Your task to perform on an android device: open app "Spotify" (install if not already installed) and go to login screen Image 0: 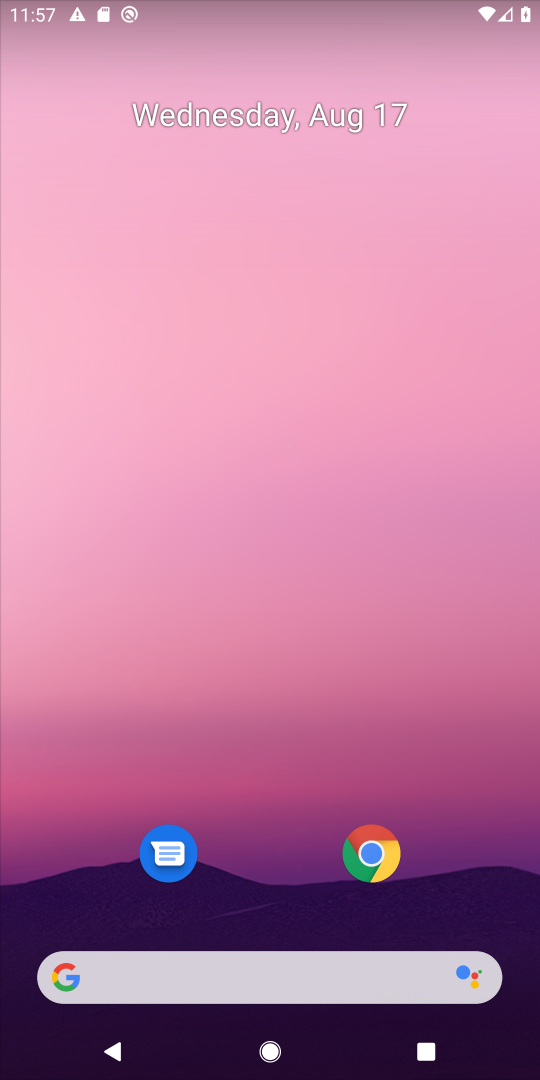
Step 0: drag from (171, 945) to (87, 240)
Your task to perform on an android device: open app "Spotify" (install if not already installed) and go to login screen Image 1: 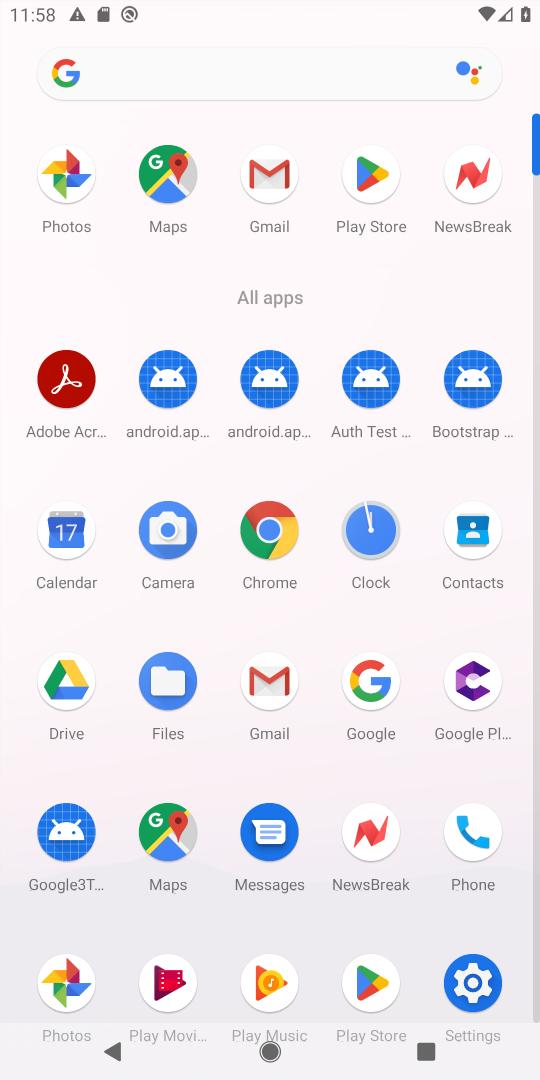
Step 1: click (350, 972)
Your task to perform on an android device: open app "Spotify" (install if not already installed) and go to login screen Image 2: 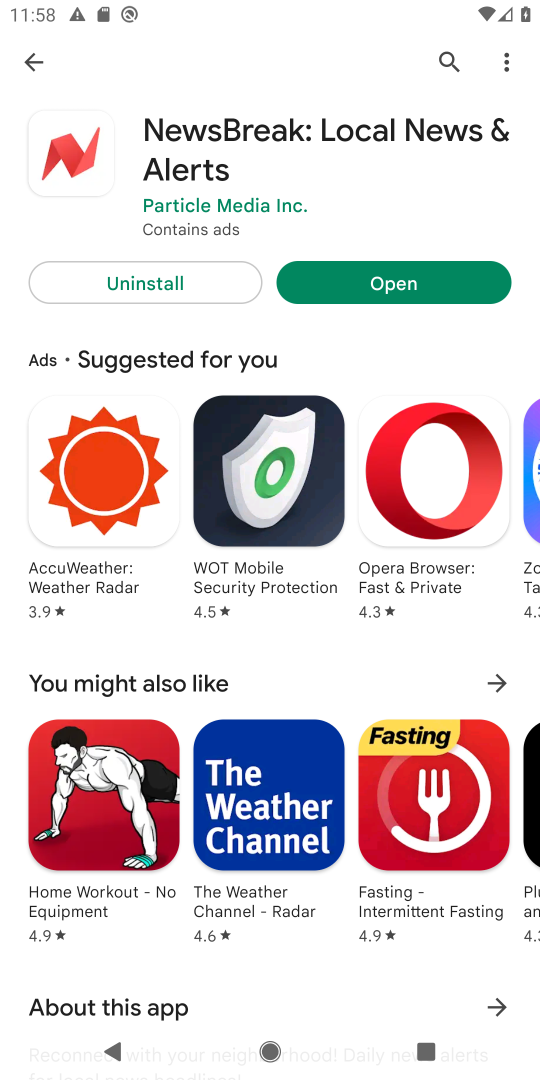
Step 2: click (15, 65)
Your task to perform on an android device: open app "Spotify" (install if not already installed) and go to login screen Image 3: 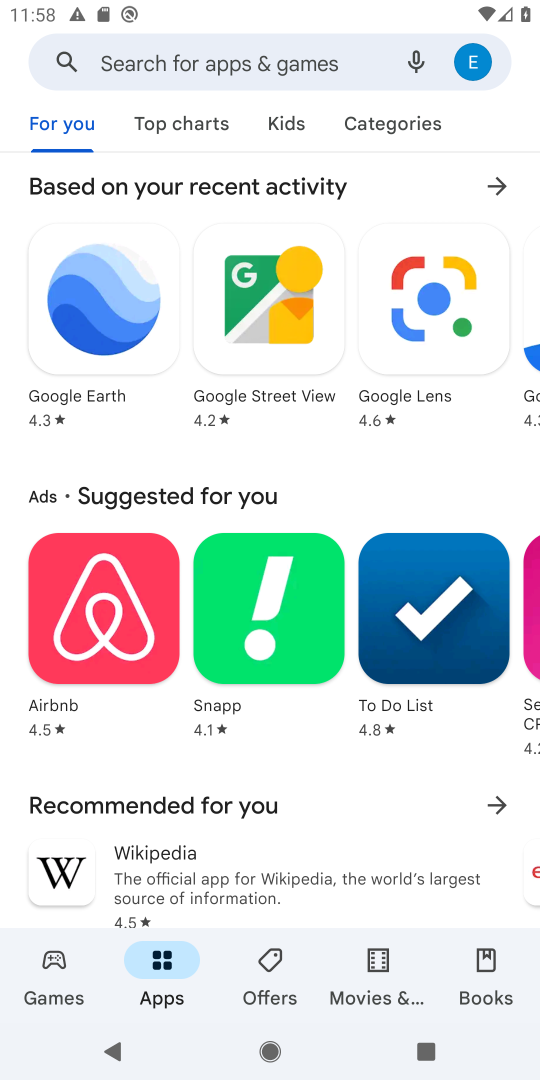
Step 3: click (208, 64)
Your task to perform on an android device: open app "Spotify" (install if not already installed) and go to login screen Image 4: 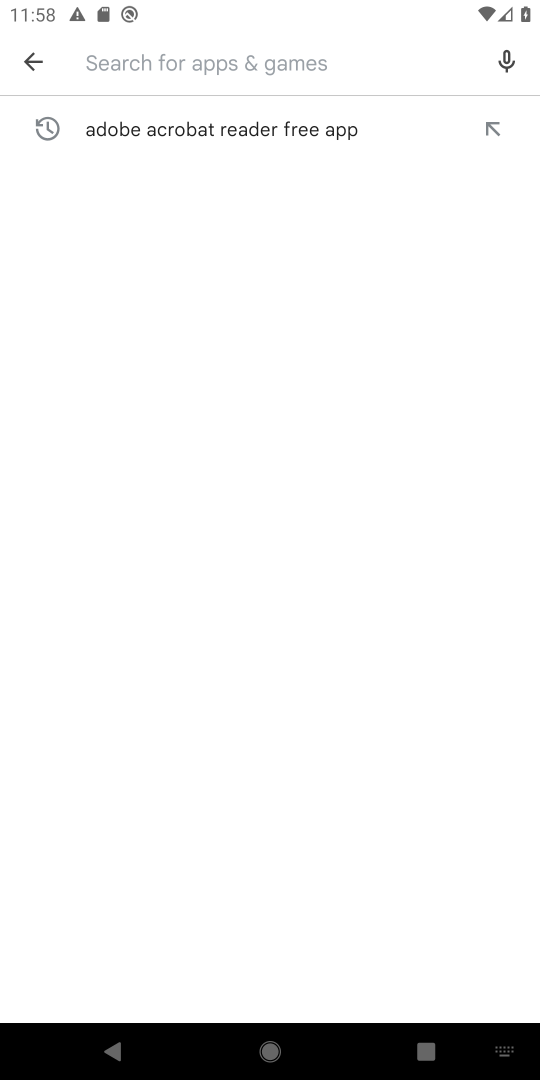
Step 4: type "Spotify"
Your task to perform on an android device: open app "Spotify" (install if not already installed) and go to login screen Image 5: 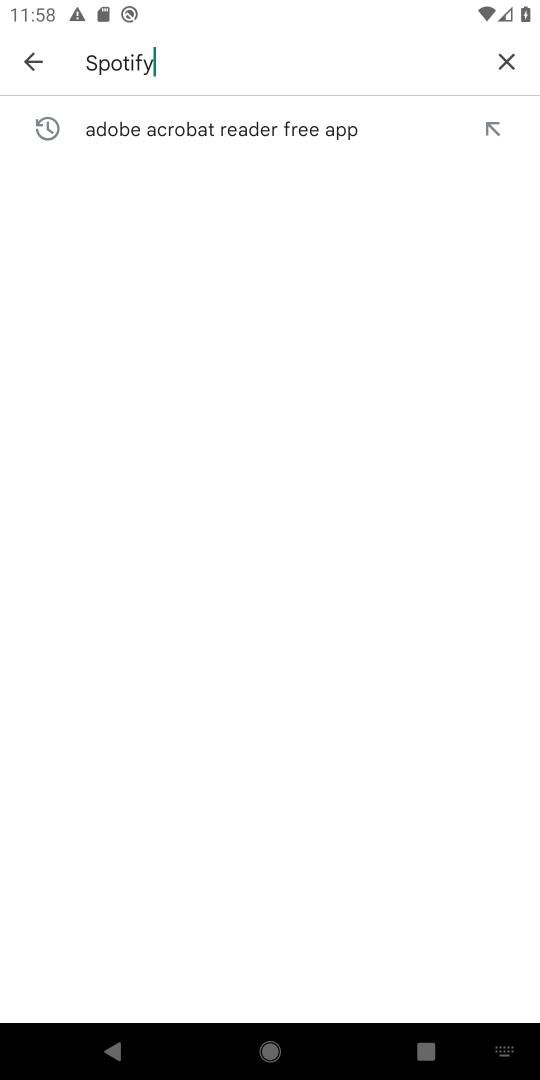
Step 5: type ""
Your task to perform on an android device: open app "Spotify" (install if not already installed) and go to login screen Image 6: 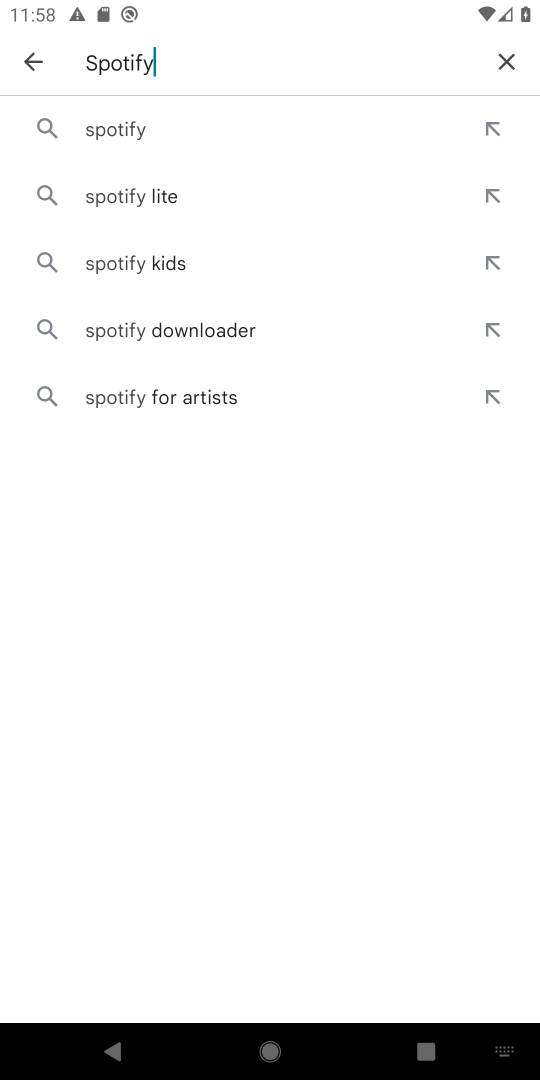
Step 6: click (123, 113)
Your task to perform on an android device: open app "Spotify" (install if not already installed) and go to login screen Image 7: 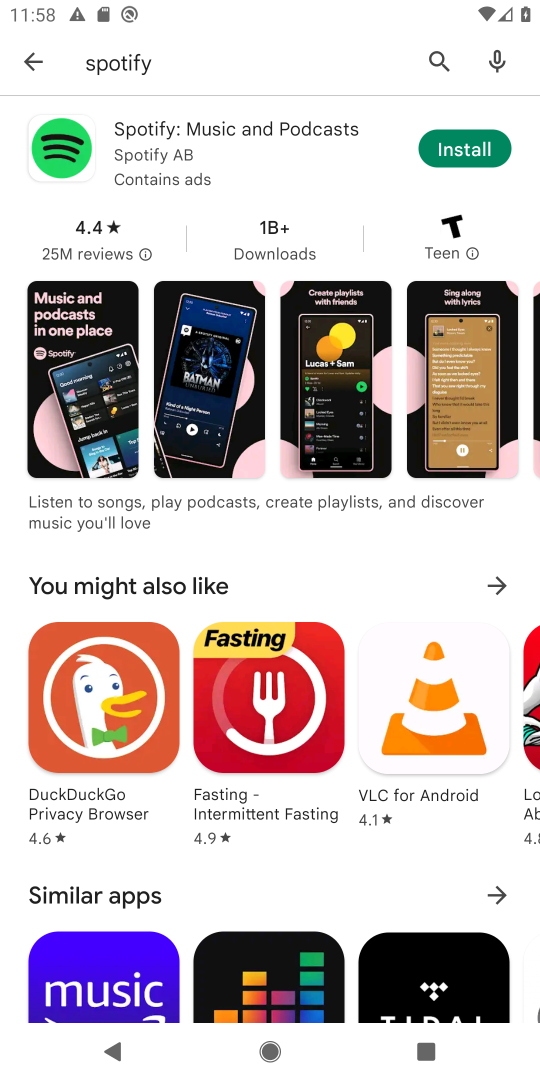
Step 7: click (461, 153)
Your task to perform on an android device: open app "Spotify" (install if not already installed) and go to login screen Image 8: 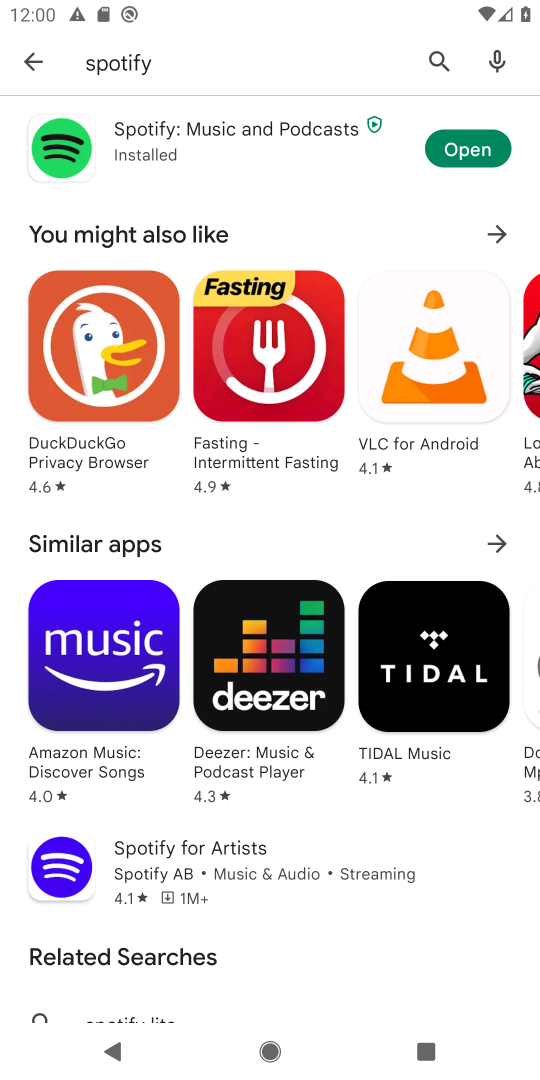
Step 8: click (485, 156)
Your task to perform on an android device: open app "Spotify" (install if not already installed) and go to login screen Image 9: 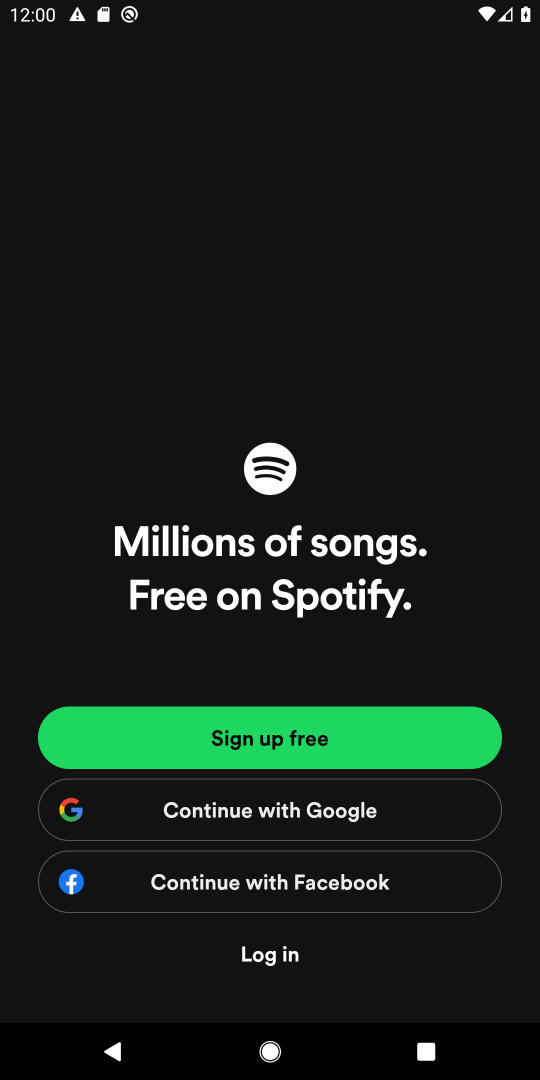
Step 9: task complete